Your task to perform on an android device: turn on the 12-hour format for clock Image 0: 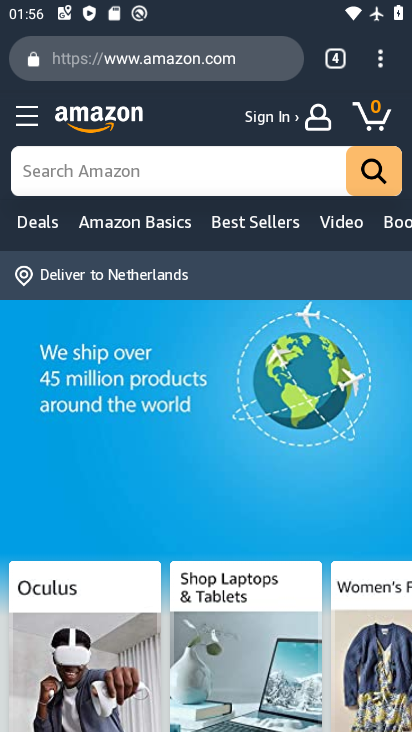
Step 0: press home button
Your task to perform on an android device: turn on the 12-hour format for clock Image 1: 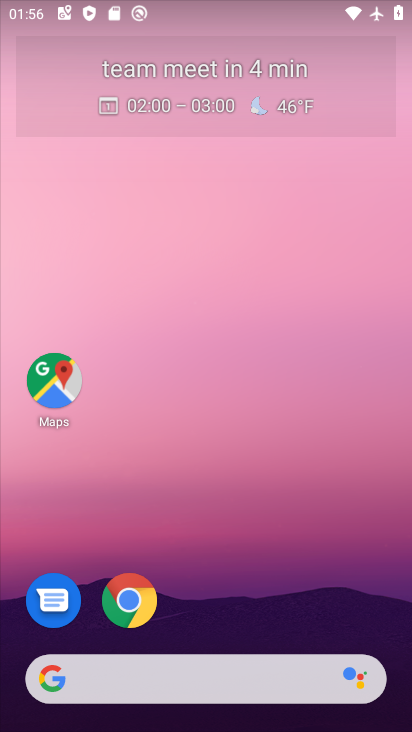
Step 1: drag from (208, 632) to (166, 5)
Your task to perform on an android device: turn on the 12-hour format for clock Image 2: 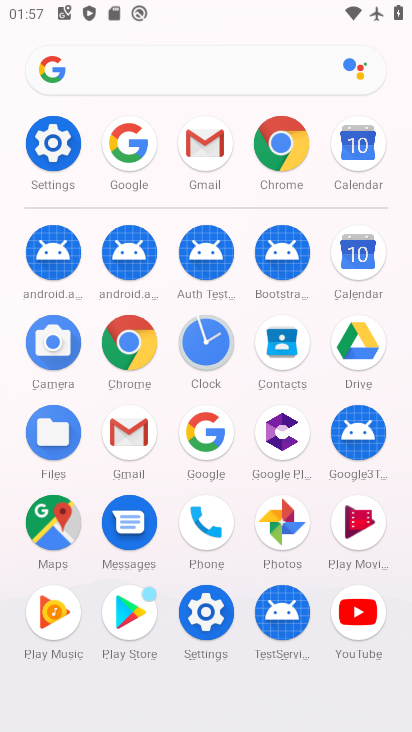
Step 2: click (209, 360)
Your task to perform on an android device: turn on the 12-hour format for clock Image 3: 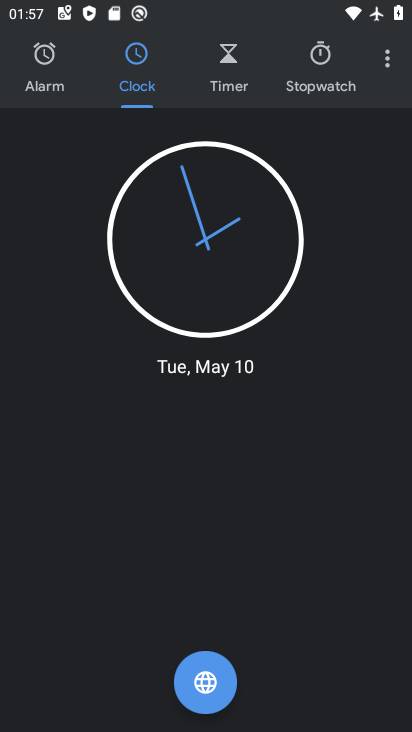
Step 3: click (381, 62)
Your task to perform on an android device: turn on the 12-hour format for clock Image 4: 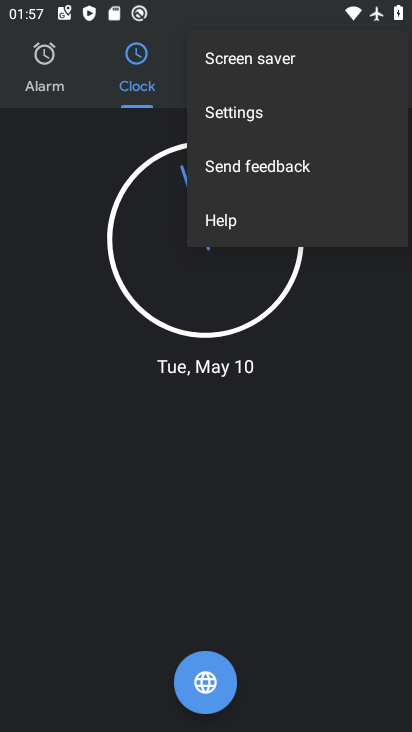
Step 4: click (248, 124)
Your task to perform on an android device: turn on the 12-hour format for clock Image 5: 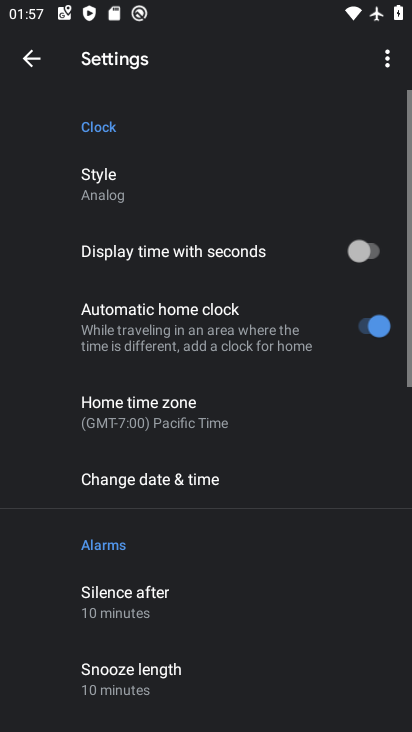
Step 5: click (178, 472)
Your task to perform on an android device: turn on the 12-hour format for clock Image 6: 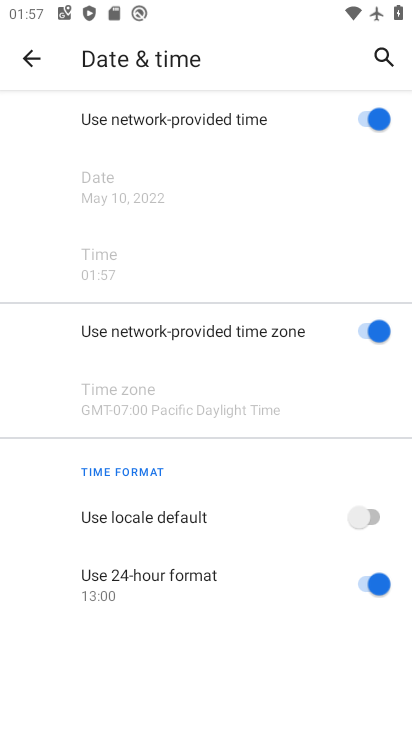
Step 6: click (374, 577)
Your task to perform on an android device: turn on the 12-hour format for clock Image 7: 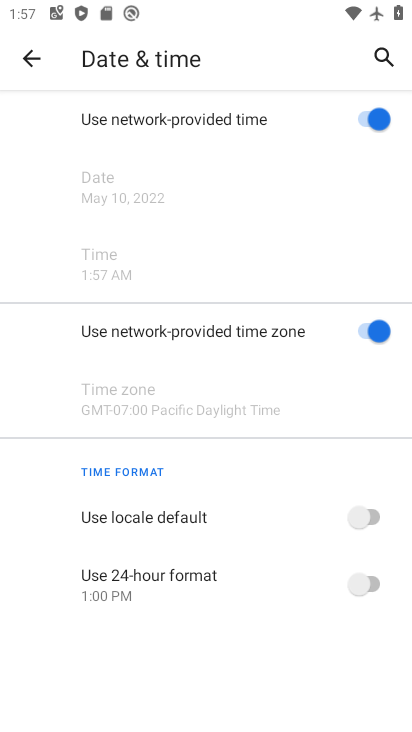
Step 7: task complete